Your task to perform on an android device: turn pop-ups off in chrome Image 0: 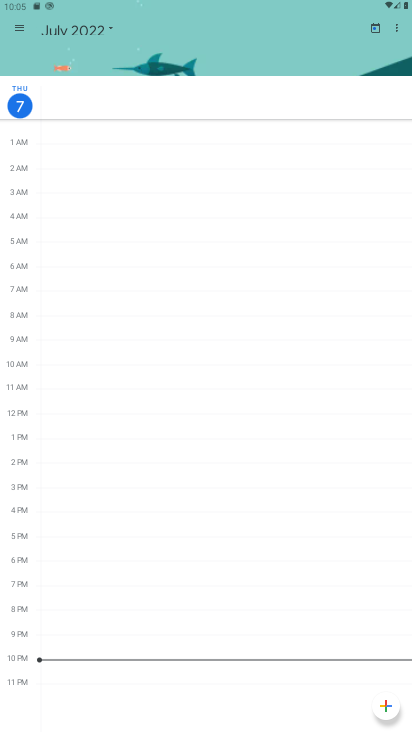
Step 0: press home button
Your task to perform on an android device: turn pop-ups off in chrome Image 1: 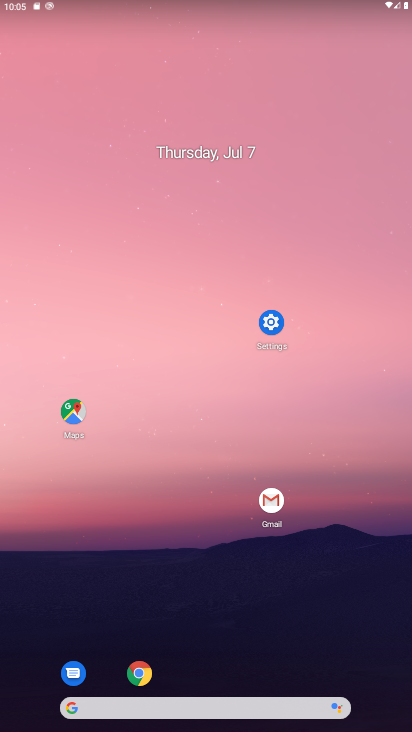
Step 1: click (148, 672)
Your task to perform on an android device: turn pop-ups off in chrome Image 2: 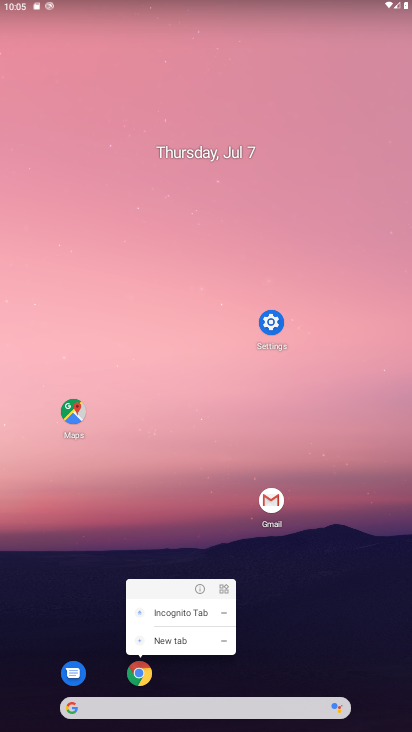
Step 2: click (148, 672)
Your task to perform on an android device: turn pop-ups off in chrome Image 3: 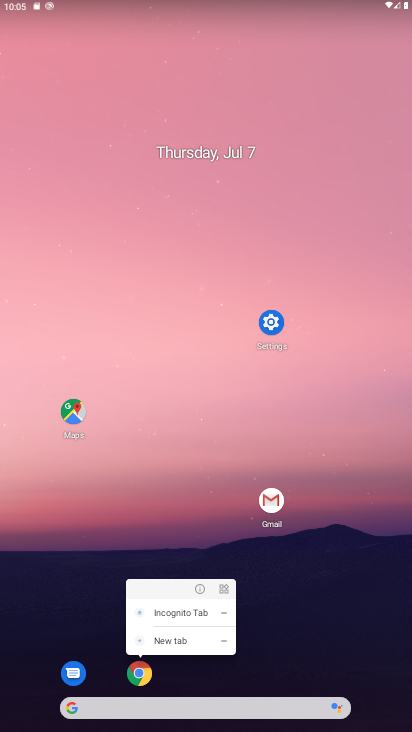
Step 3: click (137, 669)
Your task to perform on an android device: turn pop-ups off in chrome Image 4: 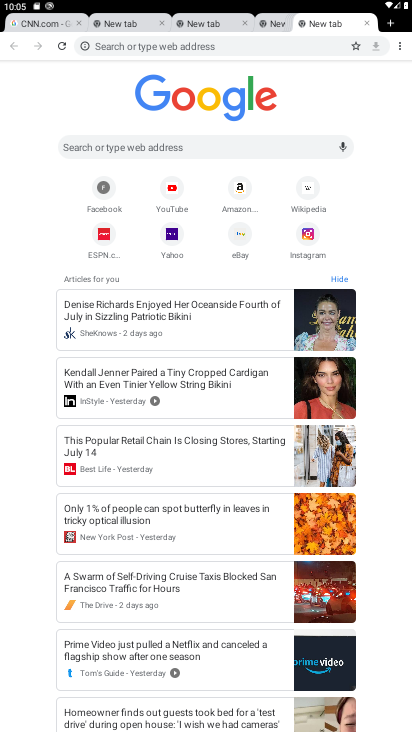
Step 4: click (398, 36)
Your task to perform on an android device: turn pop-ups off in chrome Image 5: 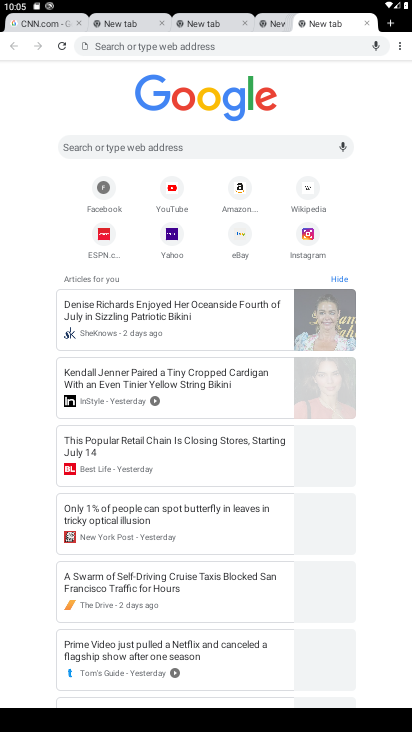
Step 5: click (398, 44)
Your task to perform on an android device: turn pop-ups off in chrome Image 6: 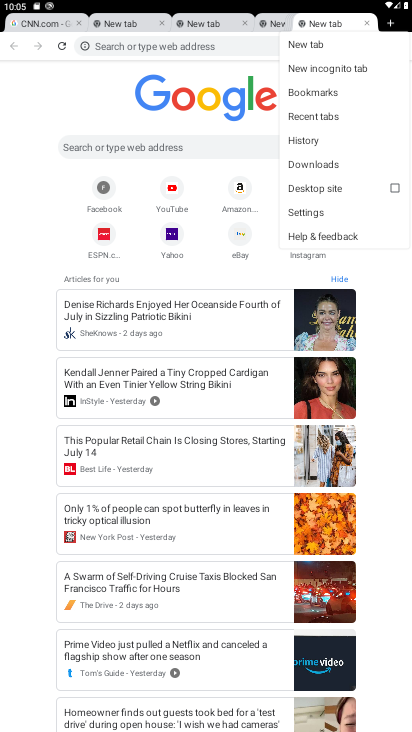
Step 6: click (294, 211)
Your task to perform on an android device: turn pop-ups off in chrome Image 7: 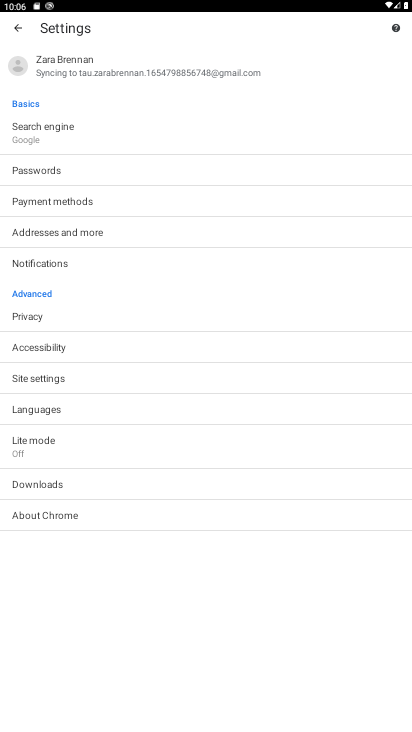
Step 7: click (38, 369)
Your task to perform on an android device: turn pop-ups off in chrome Image 8: 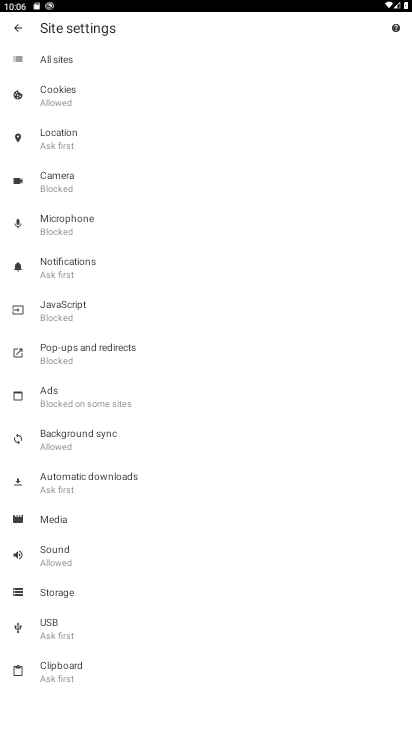
Step 8: click (62, 351)
Your task to perform on an android device: turn pop-ups off in chrome Image 9: 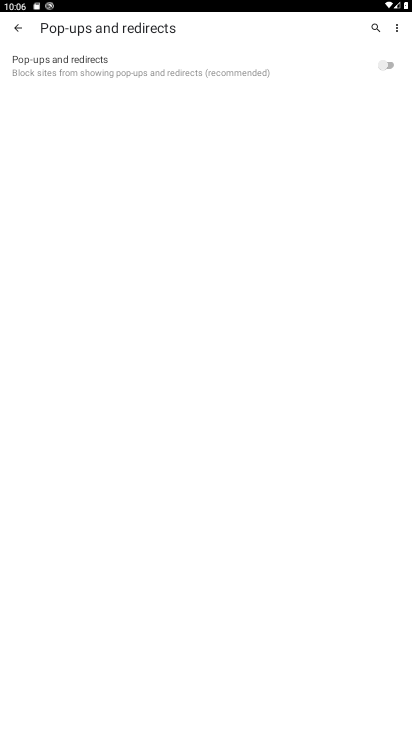
Step 9: task complete